Your task to perform on an android device: Open Chrome and go to settings Image 0: 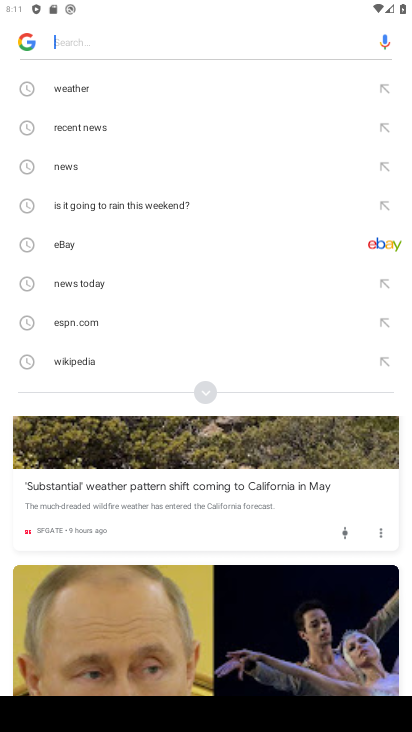
Step 0: press home button
Your task to perform on an android device: Open Chrome and go to settings Image 1: 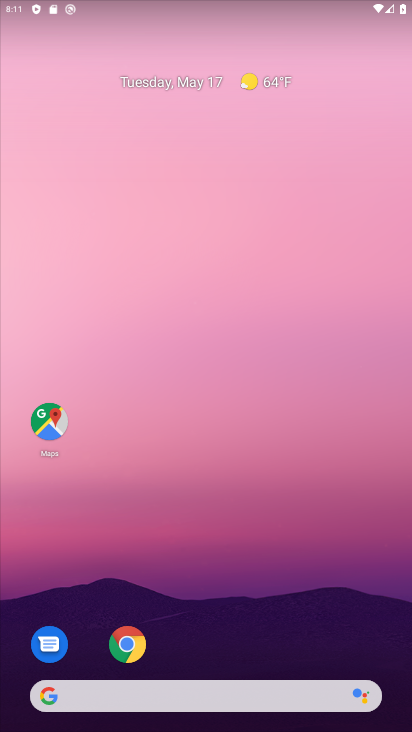
Step 1: click (136, 643)
Your task to perform on an android device: Open Chrome and go to settings Image 2: 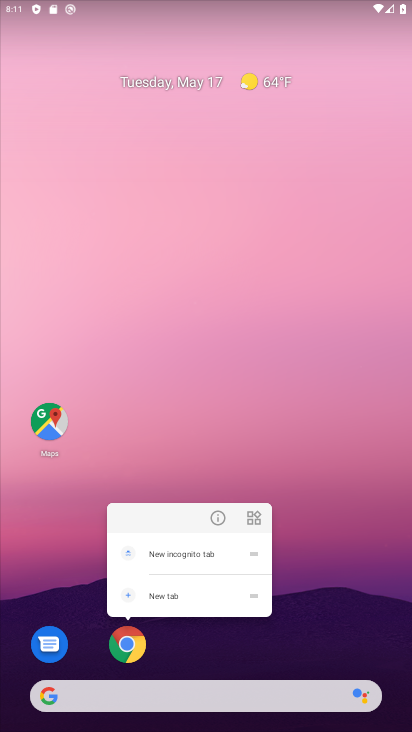
Step 2: click (125, 643)
Your task to perform on an android device: Open Chrome and go to settings Image 3: 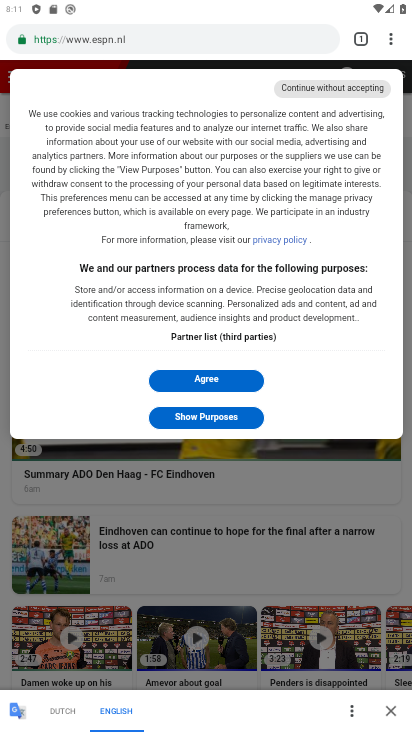
Step 3: task complete